Your task to perform on an android device: check out phone information Image 0: 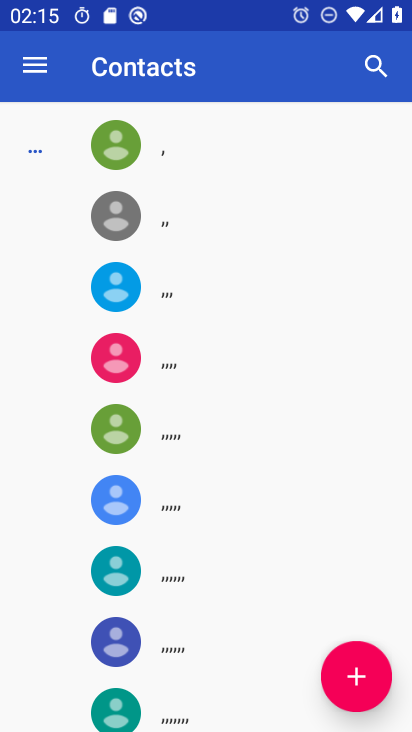
Step 0: press home button
Your task to perform on an android device: check out phone information Image 1: 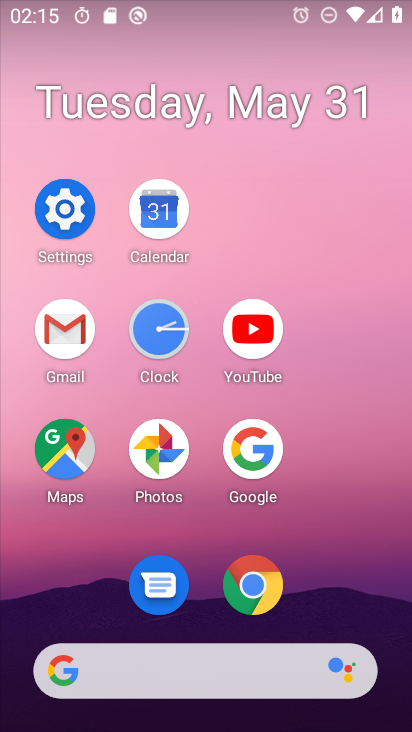
Step 1: press home button
Your task to perform on an android device: check out phone information Image 2: 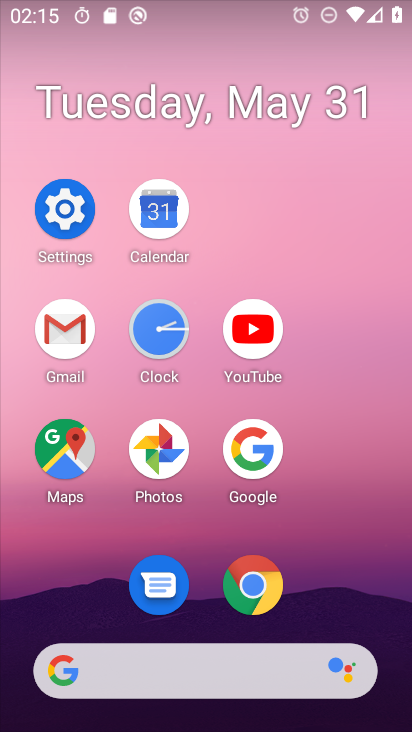
Step 2: click (79, 205)
Your task to perform on an android device: check out phone information Image 3: 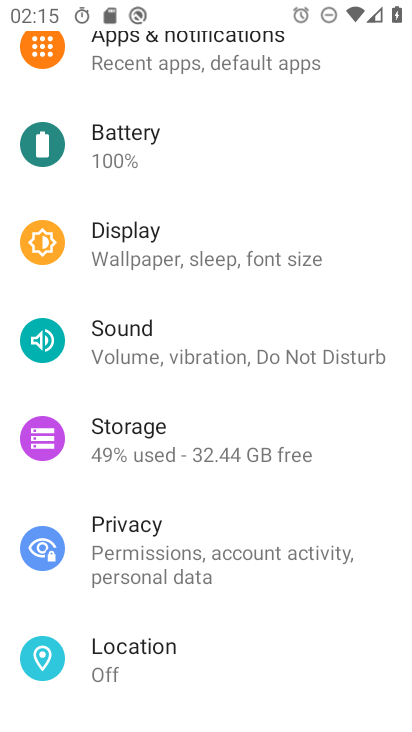
Step 3: drag from (333, 607) to (367, 214)
Your task to perform on an android device: check out phone information Image 4: 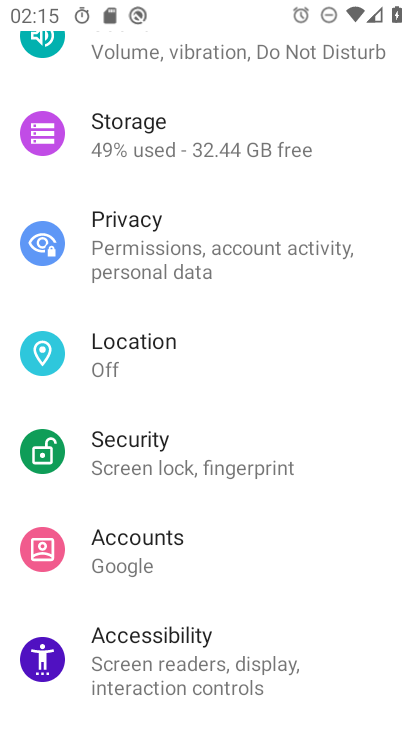
Step 4: drag from (313, 498) to (315, 200)
Your task to perform on an android device: check out phone information Image 5: 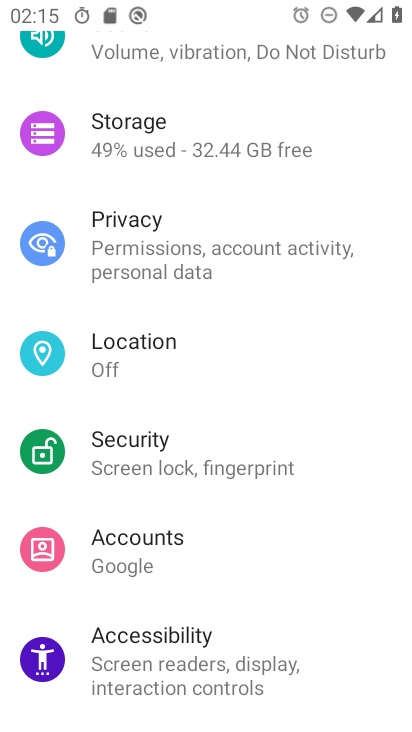
Step 5: drag from (316, 603) to (325, 216)
Your task to perform on an android device: check out phone information Image 6: 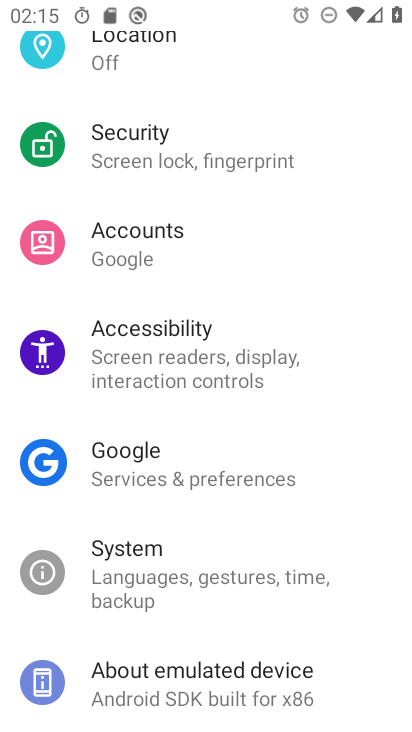
Step 6: drag from (290, 610) to (300, 229)
Your task to perform on an android device: check out phone information Image 7: 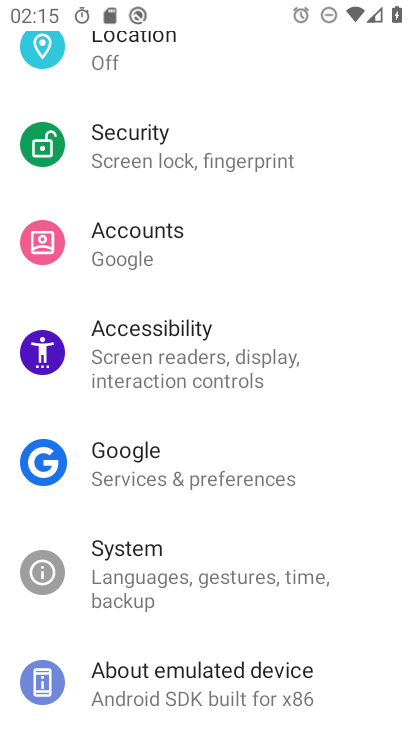
Step 7: click (260, 662)
Your task to perform on an android device: check out phone information Image 8: 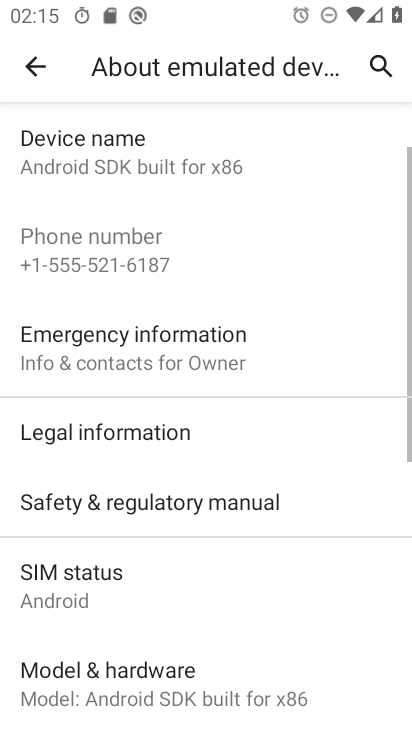
Step 8: drag from (260, 662) to (283, 327)
Your task to perform on an android device: check out phone information Image 9: 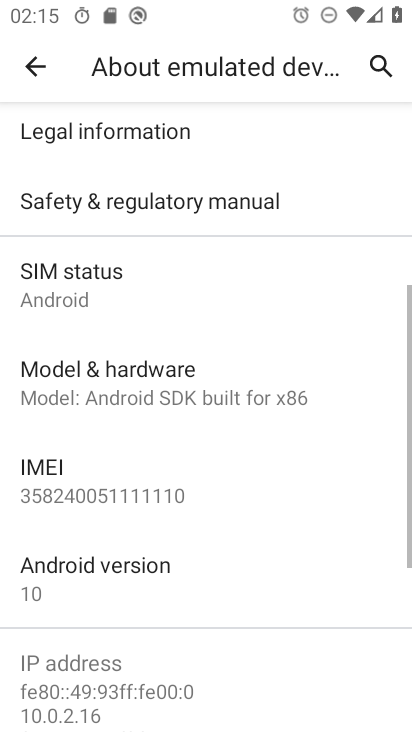
Step 9: click (256, 375)
Your task to perform on an android device: check out phone information Image 10: 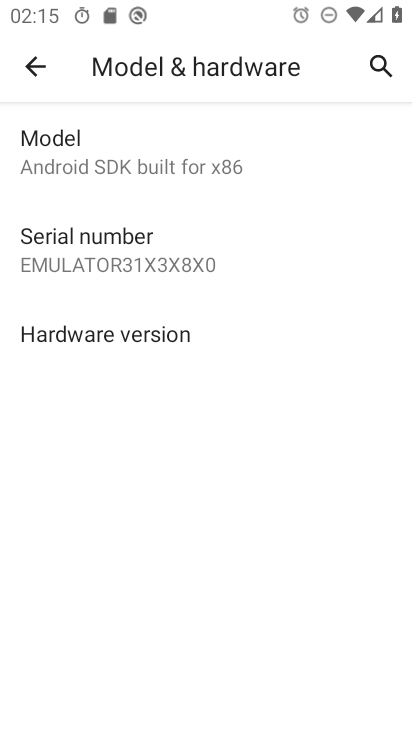
Step 10: task complete